Your task to perform on an android device: What is the recent news? Image 0: 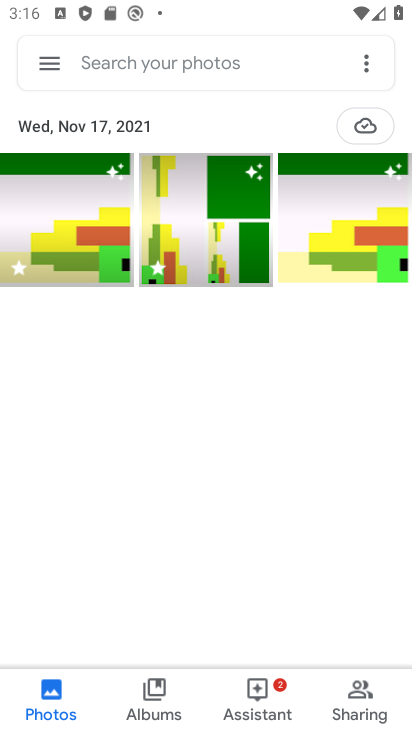
Step 0: press home button
Your task to perform on an android device: What is the recent news? Image 1: 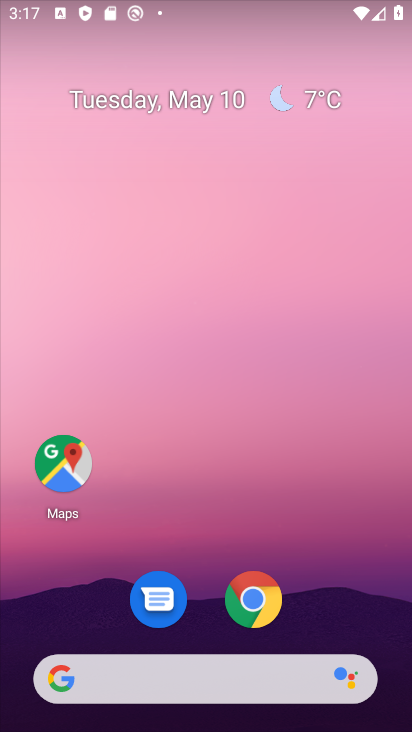
Step 1: drag from (287, 698) to (73, 52)
Your task to perform on an android device: What is the recent news? Image 2: 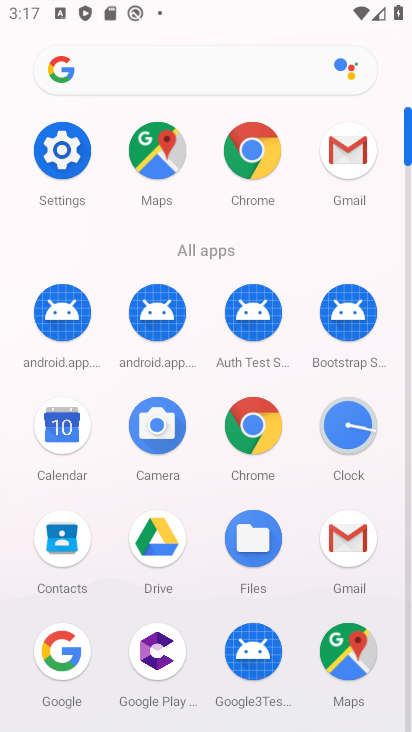
Step 2: drag from (196, 569) to (166, 378)
Your task to perform on an android device: What is the recent news? Image 3: 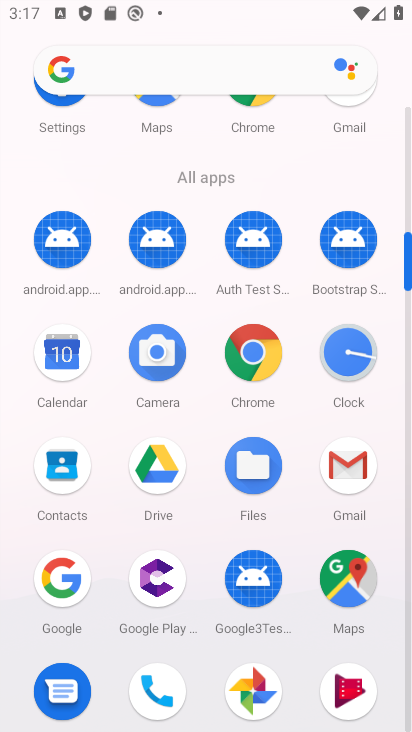
Step 3: drag from (216, 507) to (214, 388)
Your task to perform on an android device: What is the recent news? Image 4: 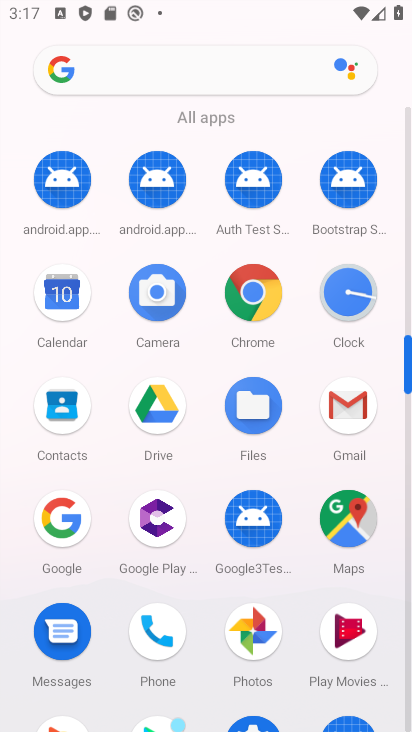
Step 4: click (72, 509)
Your task to perform on an android device: What is the recent news? Image 5: 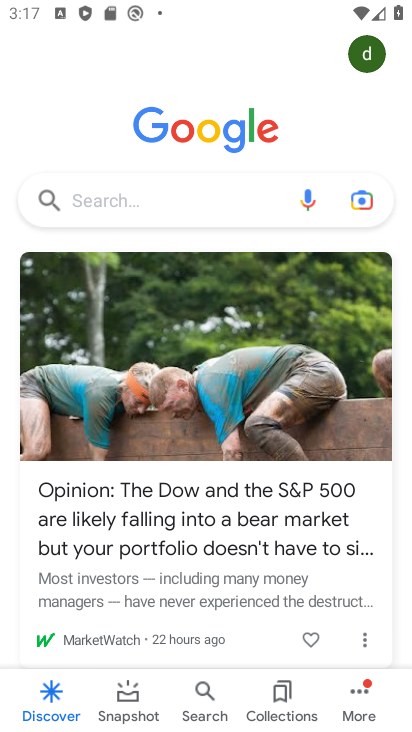
Step 5: click (169, 205)
Your task to perform on an android device: What is the recent news? Image 6: 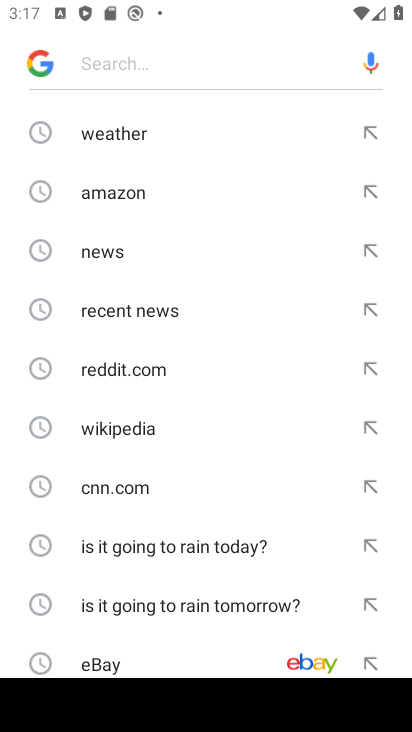
Step 6: click (140, 246)
Your task to perform on an android device: What is the recent news? Image 7: 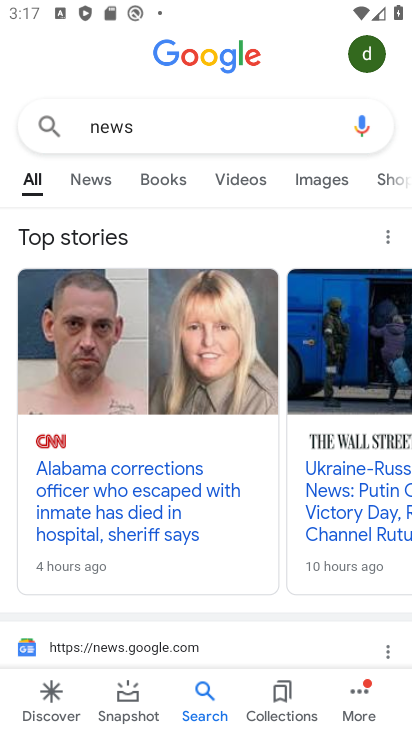
Step 7: click (100, 182)
Your task to perform on an android device: What is the recent news? Image 8: 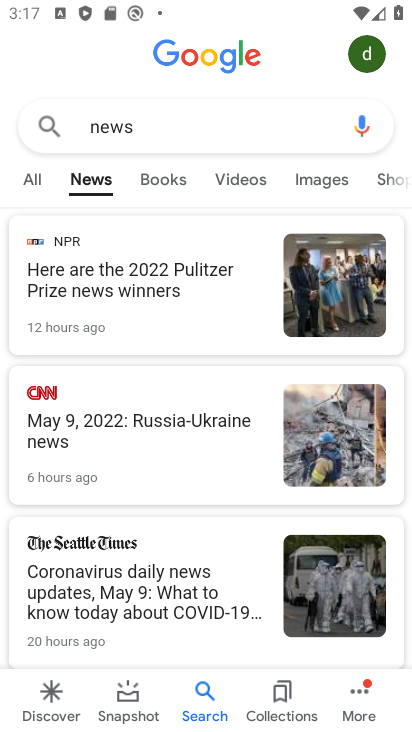
Step 8: task complete